Your task to perform on an android device: Add "alienware area 51" to the cart on bestbuy.com, then select checkout. Image 0: 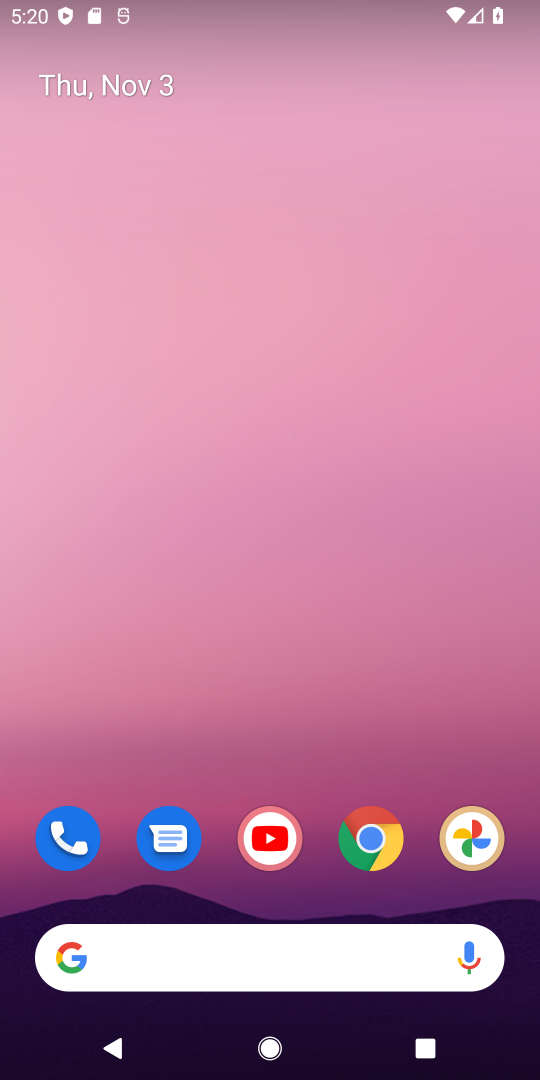
Step 0: click (345, 944)
Your task to perform on an android device: Add "alienware area 51" to the cart on bestbuy.com, then select checkout. Image 1: 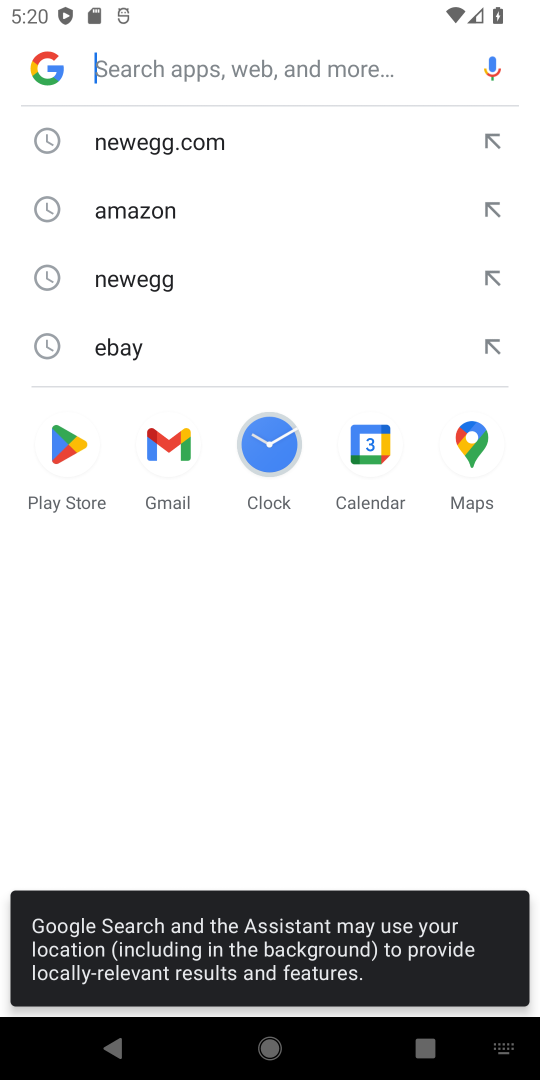
Step 1: click (234, 74)
Your task to perform on an android device: Add "alienware area 51" to the cart on bestbuy.com, then select checkout. Image 2: 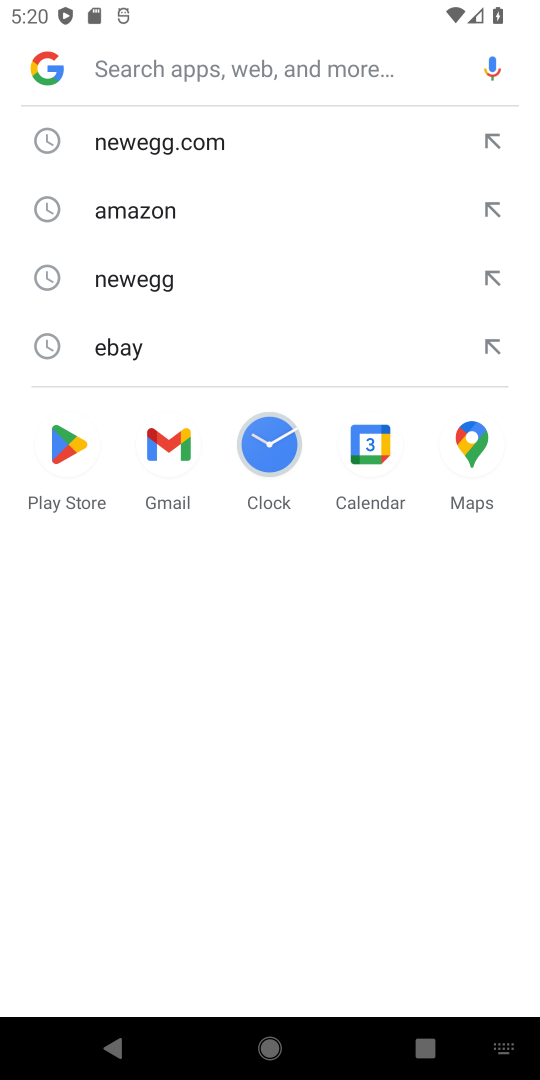
Step 2: type "bestbuy"
Your task to perform on an android device: Add "alienware area 51" to the cart on bestbuy.com, then select checkout. Image 3: 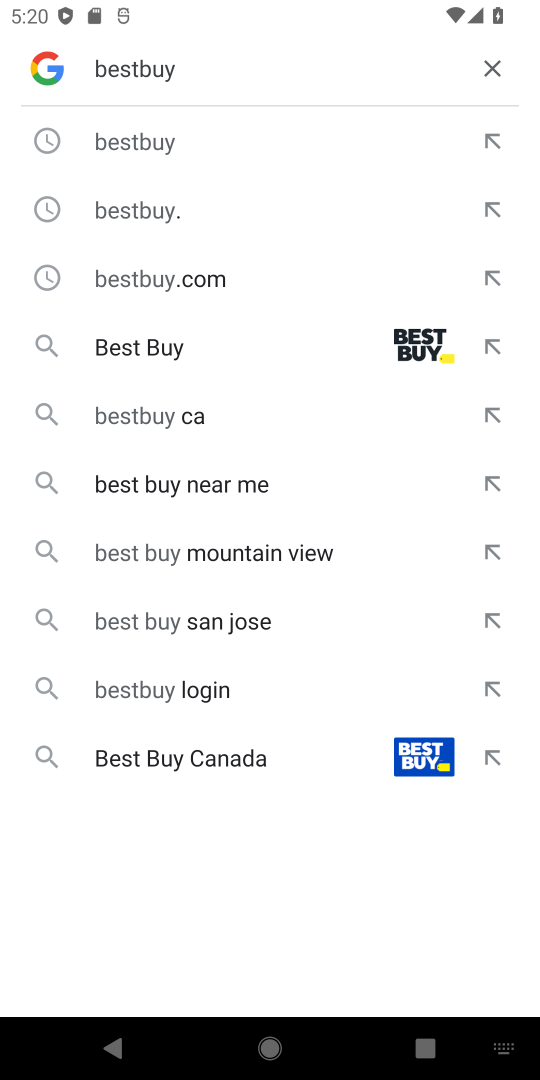
Step 3: click (148, 336)
Your task to perform on an android device: Add "alienware area 51" to the cart on bestbuy.com, then select checkout. Image 4: 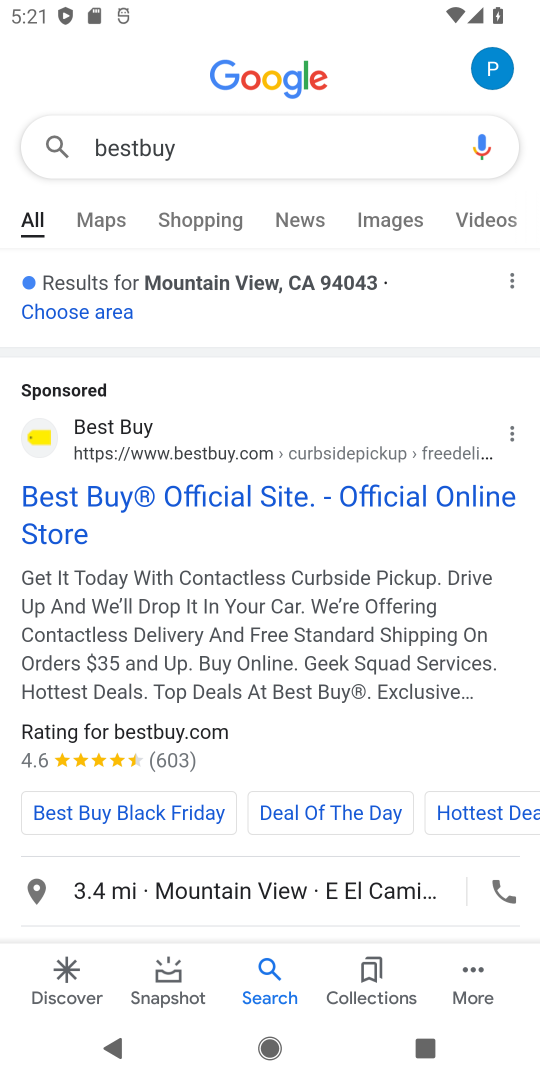
Step 4: drag from (374, 692) to (478, 243)
Your task to perform on an android device: Add "alienware area 51" to the cart on bestbuy.com, then select checkout. Image 5: 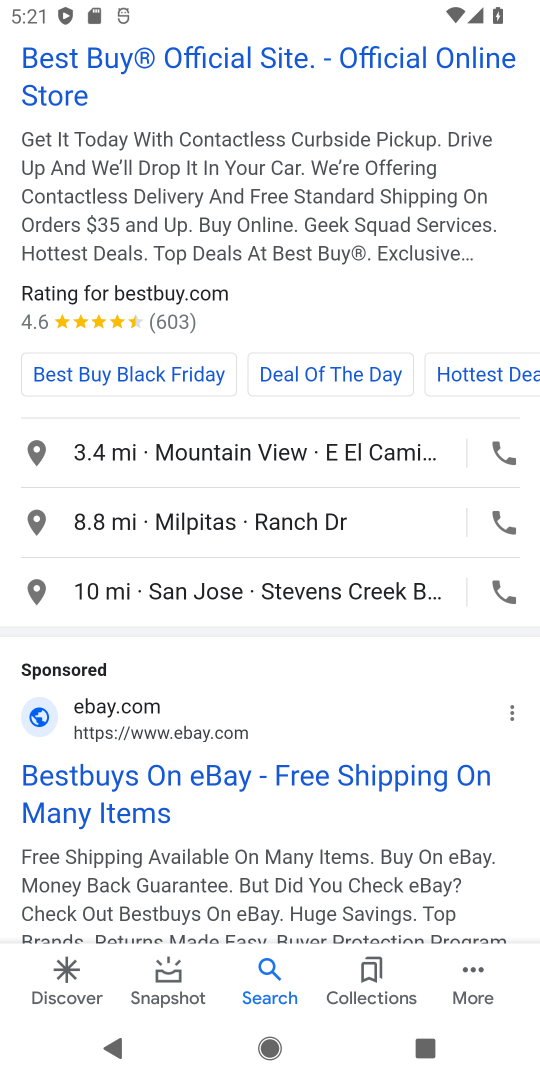
Step 5: click (287, 64)
Your task to perform on an android device: Add "alienware area 51" to the cart on bestbuy.com, then select checkout. Image 6: 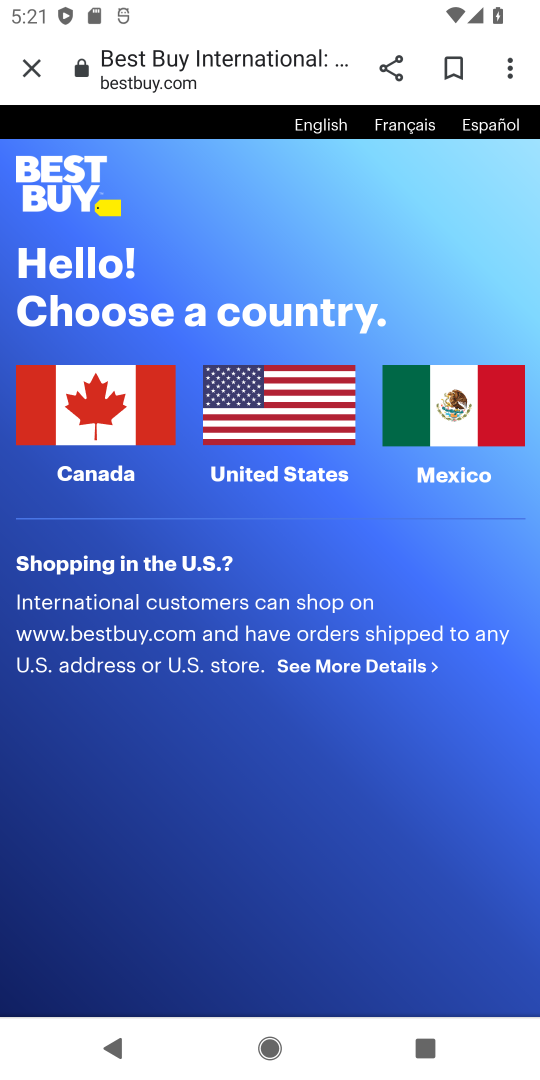
Step 6: click (276, 416)
Your task to perform on an android device: Add "alienware area 51" to the cart on bestbuy.com, then select checkout. Image 7: 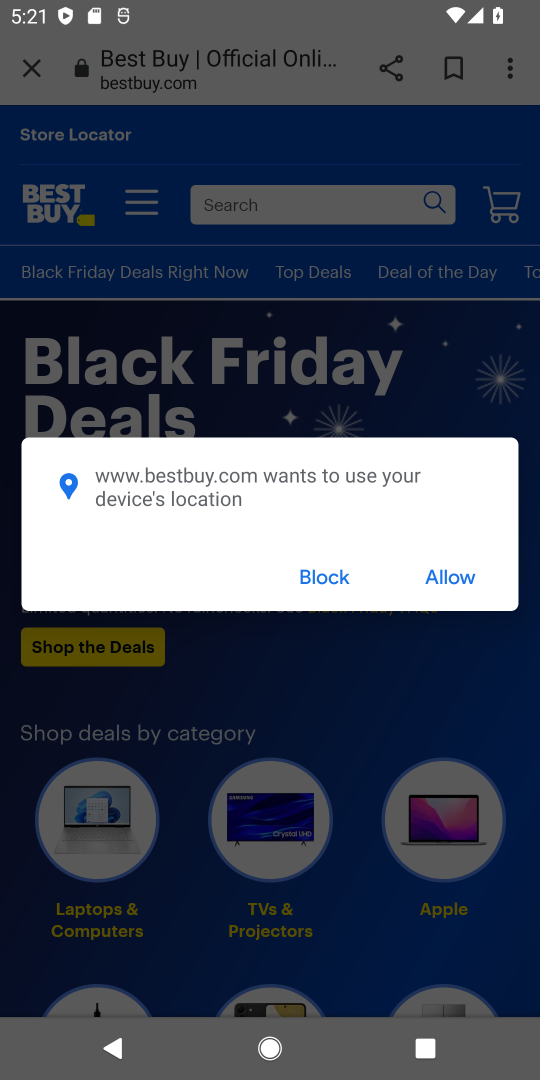
Step 7: click (452, 579)
Your task to perform on an android device: Add "alienware area 51" to the cart on bestbuy.com, then select checkout. Image 8: 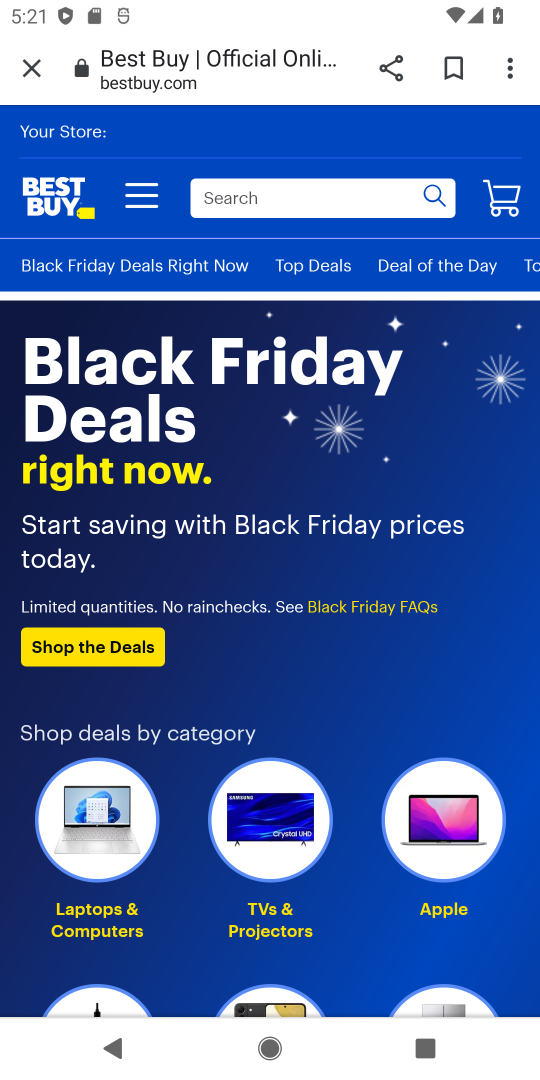
Step 8: click (265, 206)
Your task to perform on an android device: Add "alienware area 51" to the cart on bestbuy.com, then select checkout. Image 9: 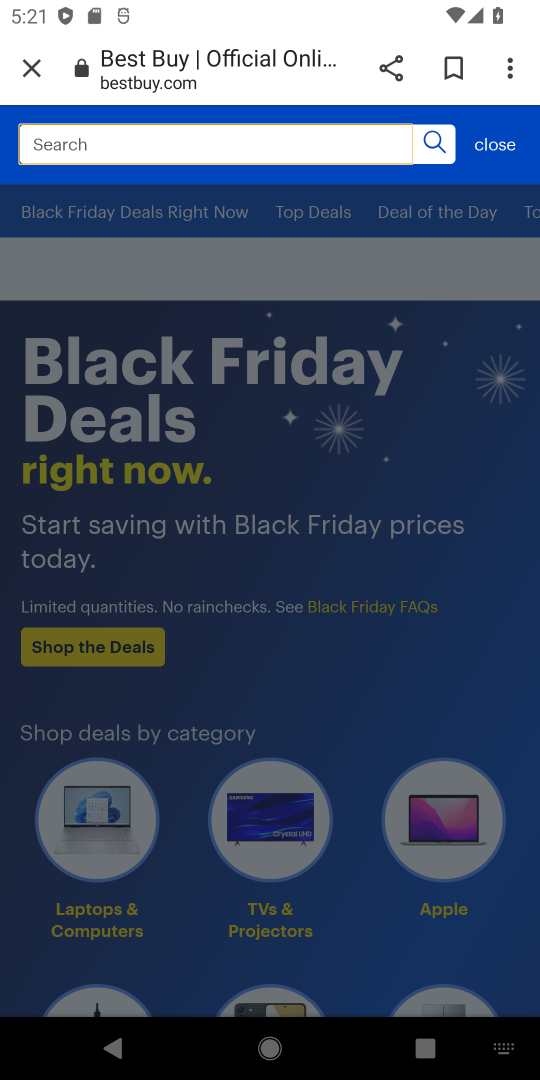
Step 9: type "alienware area 51"
Your task to perform on an android device: Add "alienware area 51" to the cart on bestbuy.com, then select checkout. Image 10: 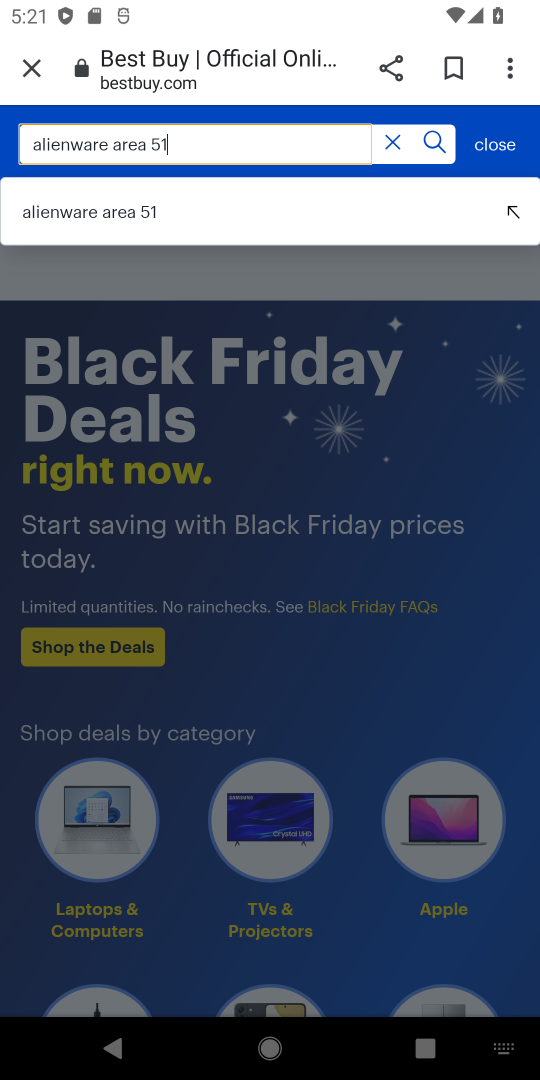
Step 10: click (142, 218)
Your task to perform on an android device: Add "alienware area 51" to the cart on bestbuy.com, then select checkout. Image 11: 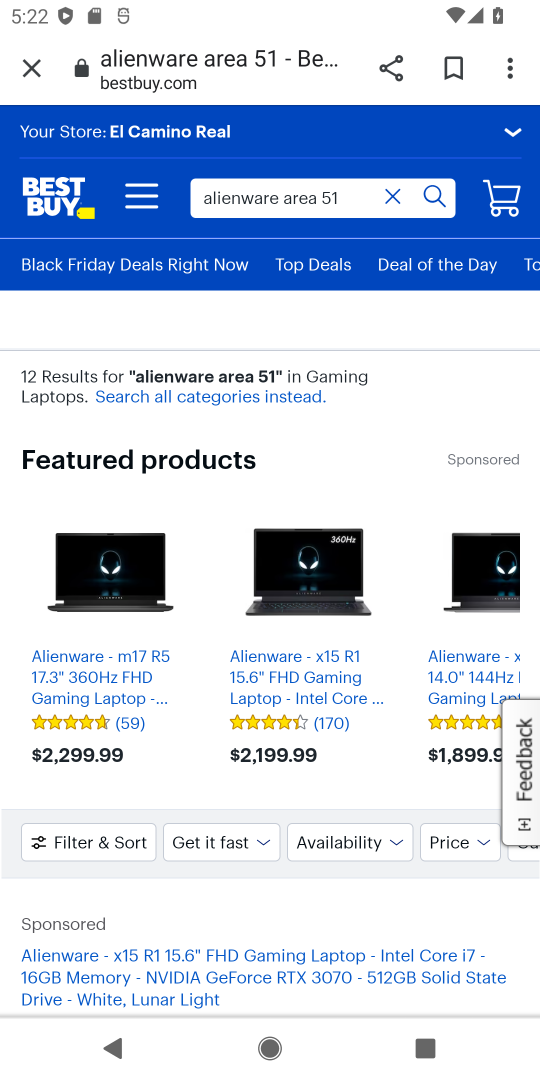
Step 11: click (158, 986)
Your task to perform on an android device: Add "alienware area 51" to the cart on bestbuy.com, then select checkout. Image 12: 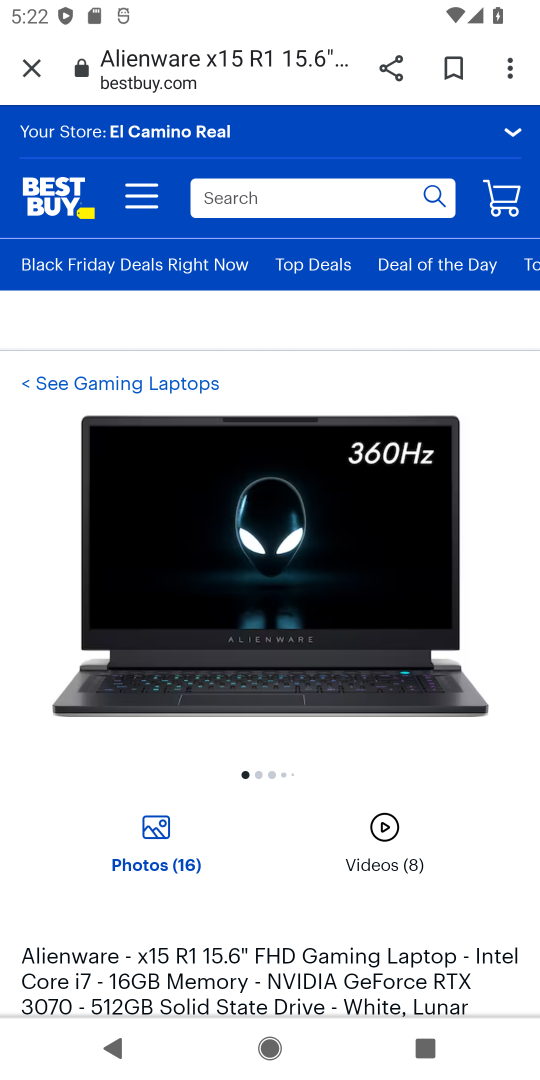
Step 12: drag from (331, 888) to (398, 268)
Your task to perform on an android device: Add "alienware area 51" to the cart on bestbuy.com, then select checkout. Image 13: 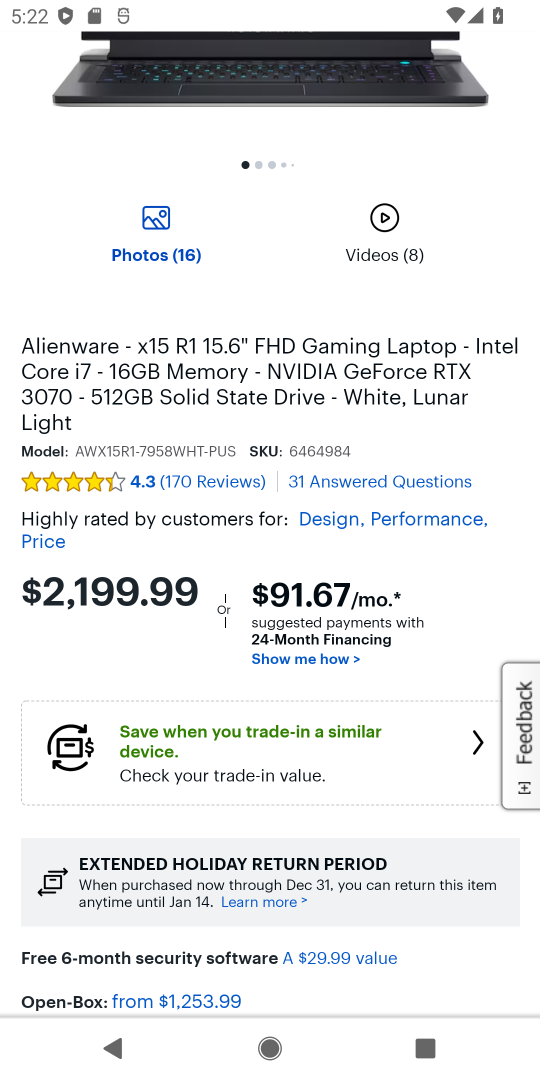
Step 13: drag from (325, 752) to (326, 220)
Your task to perform on an android device: Add "alienware area 51" to the cart on bestbuy.com, then select checkout. Image 14: 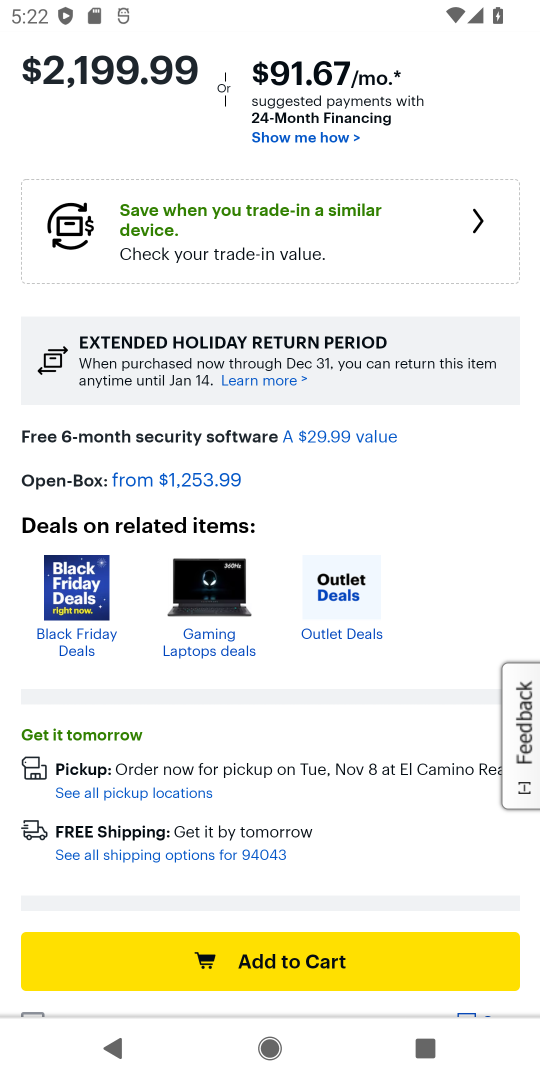
Step 14: click (276, 952)
Your task to perform on an android device: Add "alienware area 51" to the cart on bestbuy.com, then select checkout. Image 15: 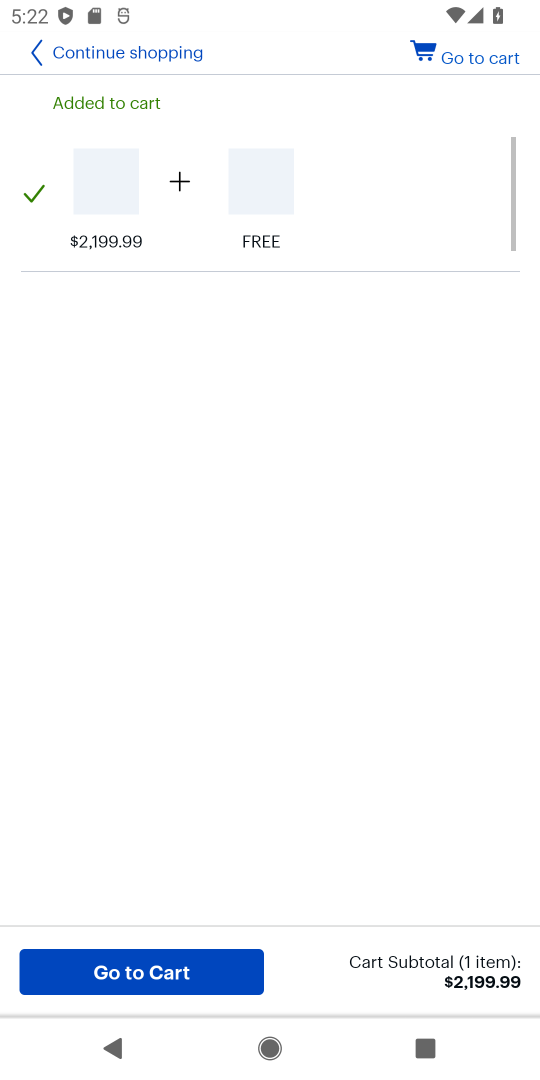
Step 15: click (132, 981)
Your task to perform on an android device: Add "alienware area 51" to the cart on bestbuy.com, then select checkout. Image 16: 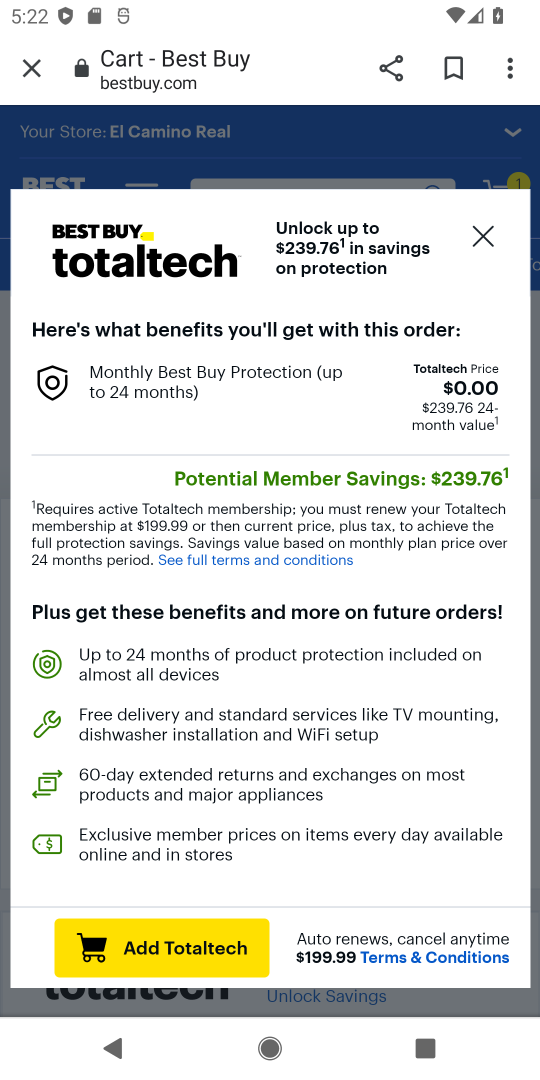
Step 16: click (476, 240)
Your task to perform on an android device: Add "alienware area 51" to the cart on bestbuy.com, then select checkout. Image 17: 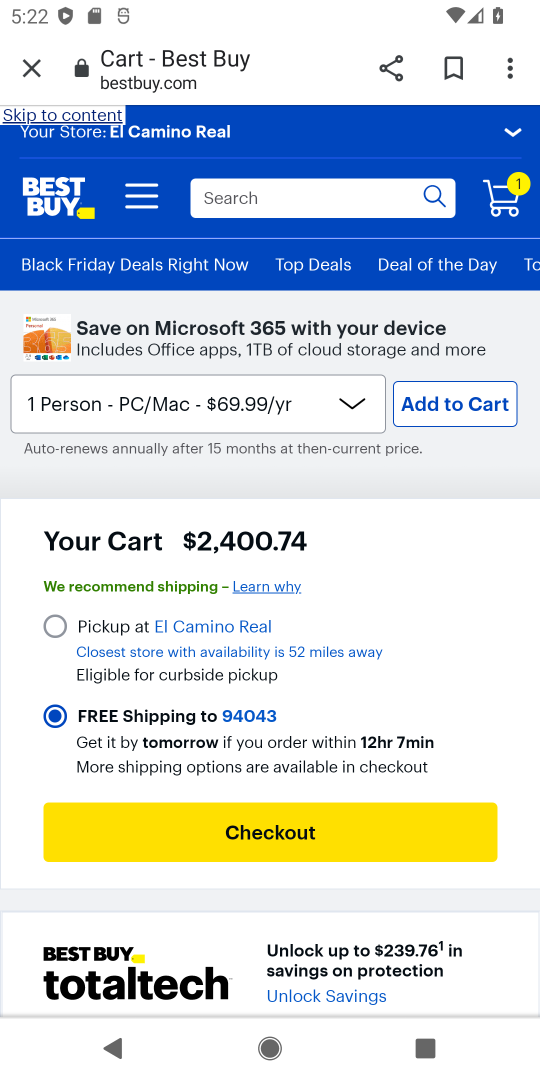
Step 17: click (212, 850)
Your task to perform on an android device: Add "alienware area 51" to the cart on bestbuy.com, then select checkout. Image 18: 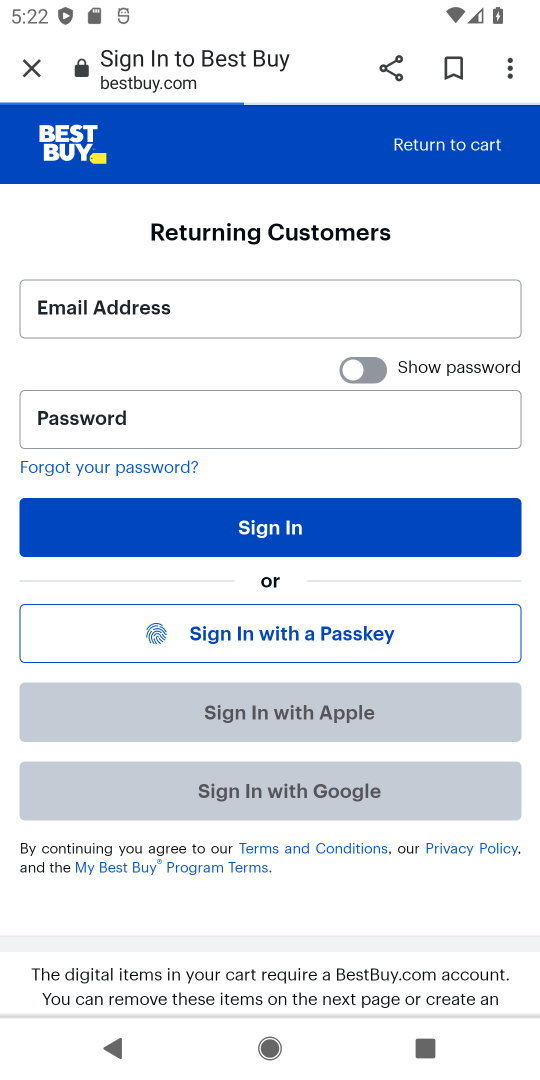
Step 18: task complete